Your task to perform on an android device: turn on the 24-hour format for clock Image 0: 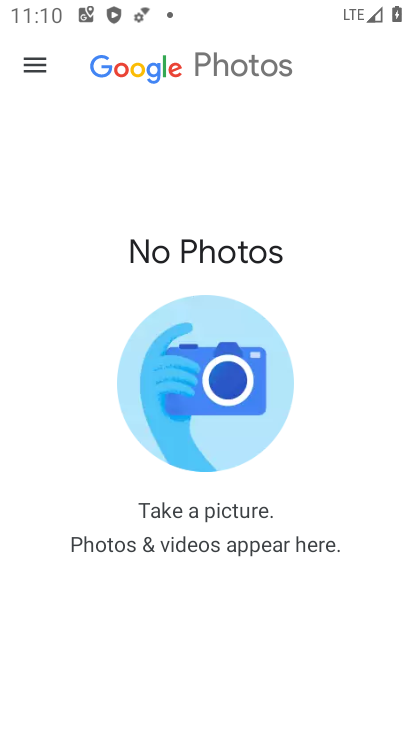
Step 0: press back button
Your task to perform on an android device: turn on the 24-hour format for clock Image 1: 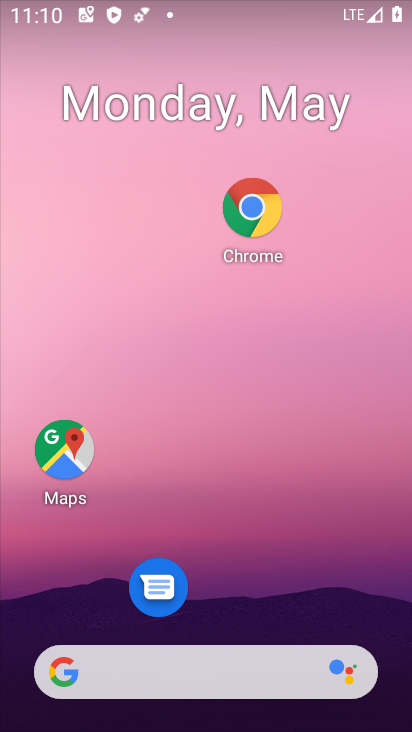
Step 1: drag from (328, 623) to (240, 33)
Your task to perform on an android device: turn on the 24-hour format for clock Image 2: 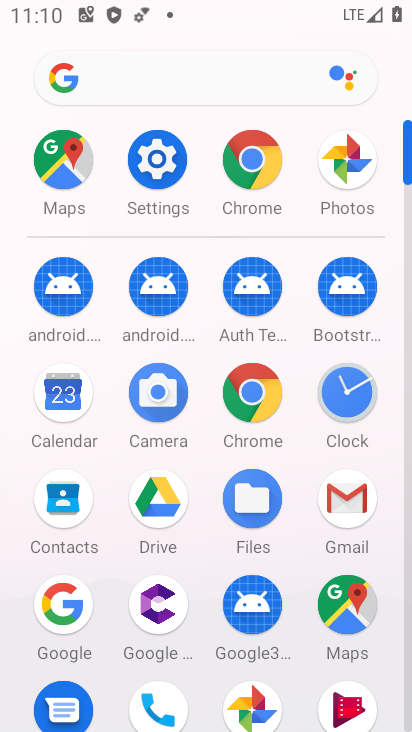
Step 2: click (331, 377)
Your task to perform on an android device: turn on the 24-hour format for clock Image 3: 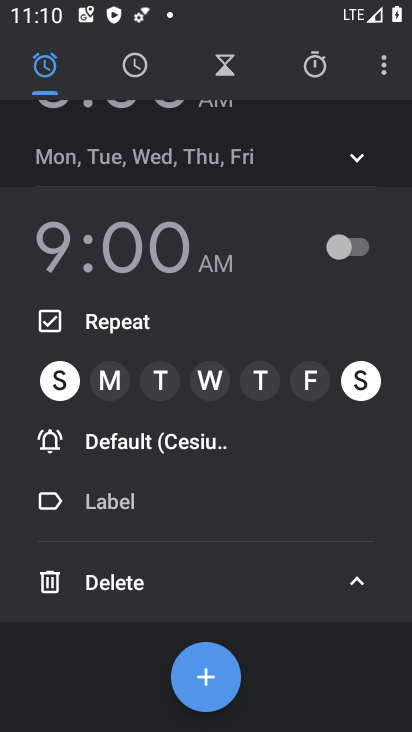
Step 3: drag from (381, 73) to (247, 138)
Your task to perform on an android device: turn on the 24-hour format for clock Image 4: 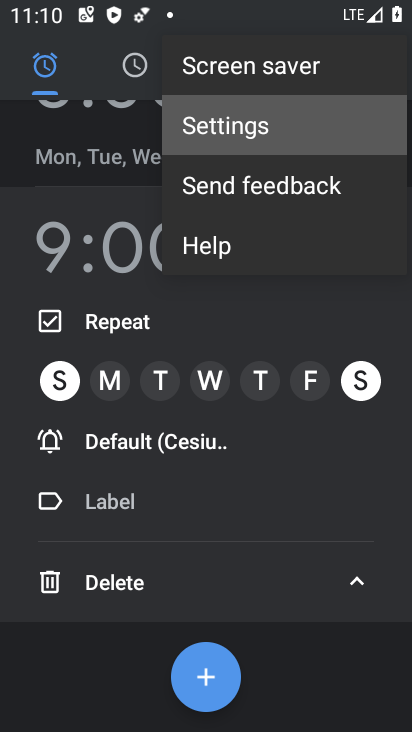
Step 4: click (252, 141)
Your task to perform on an android device: turn on the 24-hour format for clock Image 5: 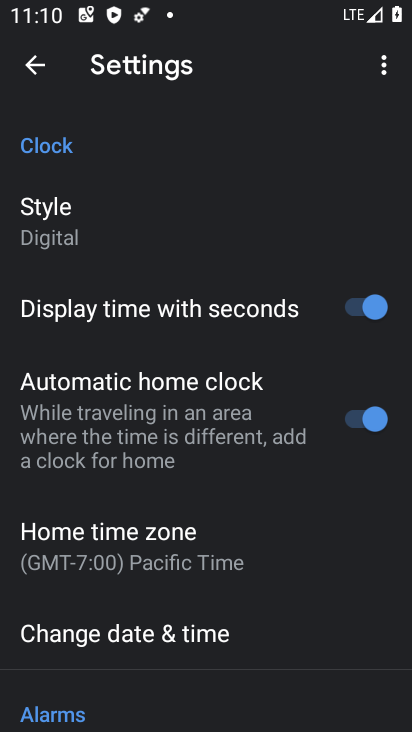
Step 5: drag from (183, 593) to (107, 83)
Your task to perform on an android device: turn on the 24-hour format for clock Image 6: 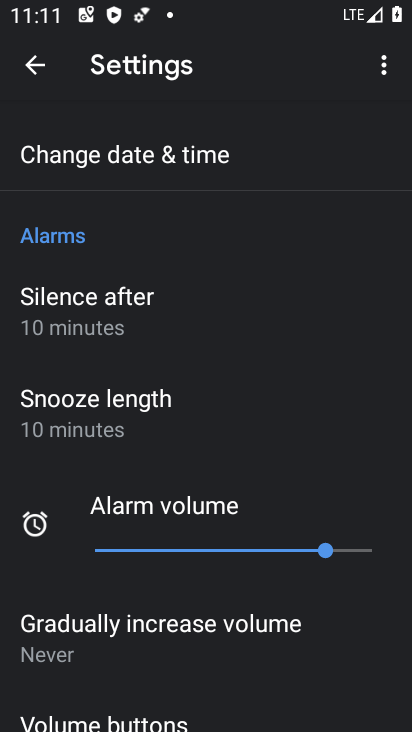
Step 6: click (133, 148)
Your task to perform on an android device: turn on the 24-hour format for clock Image 7: 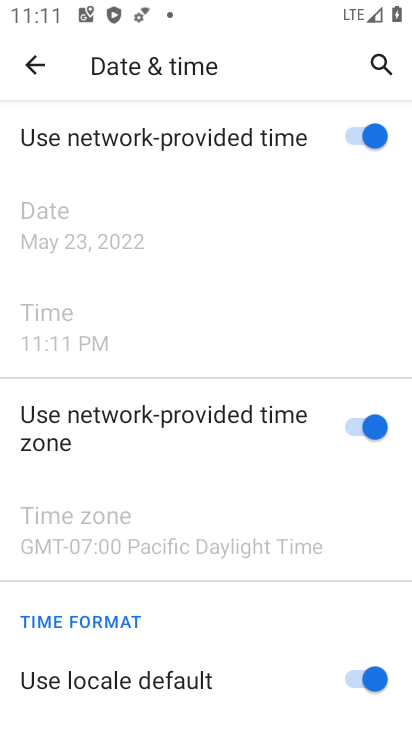
Step 7: drag from (217, 488) to (180, 48)
Your task to perform on an android device: turn on the 24-hour format for clock Image 8: 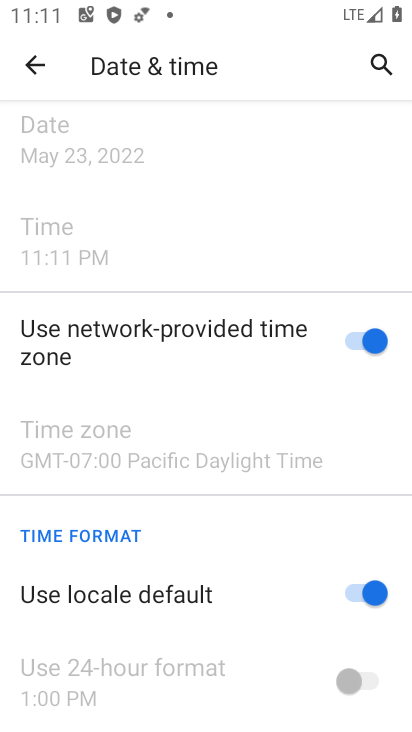
Step 8: click (365, 600)
Your task to perform on an android device: turn on the 24-hour format for clock Image 9: 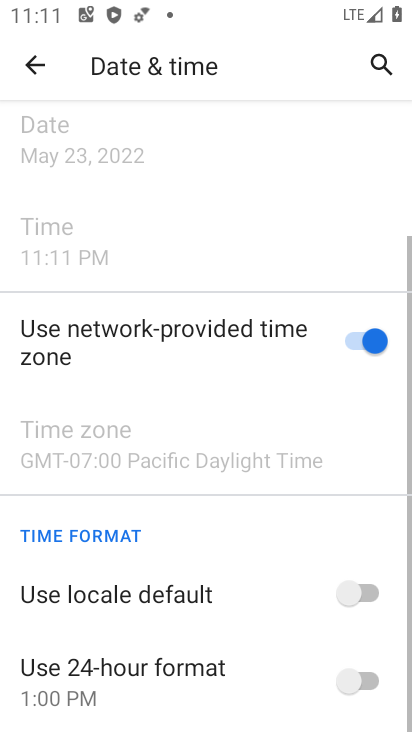
Step 9: click (341, 688)
Your task to perform on an android device: turn on the 24-hour format for clock Image 10: 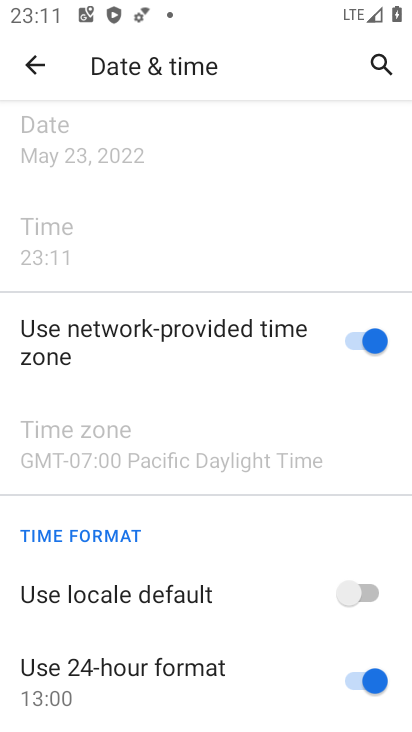
Step 10: task complete